Your task to perform on an android device: Go to calendar. Show me events next week Image 0: 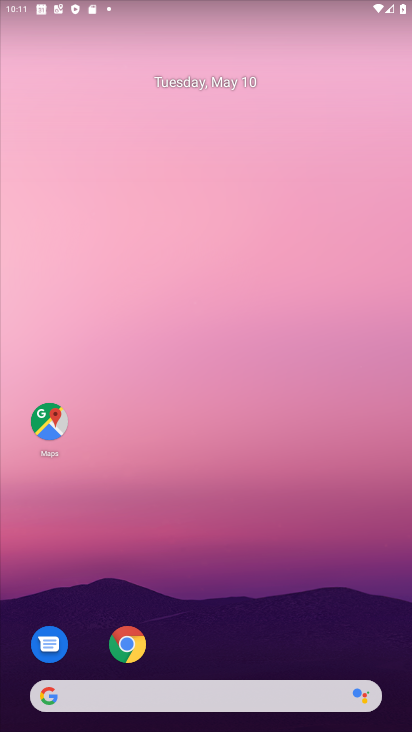
Step 0: drag from (264, 634) to (325, 49)
Your task to perform on an android device: Go to calendar. Show me events next week Image 1: 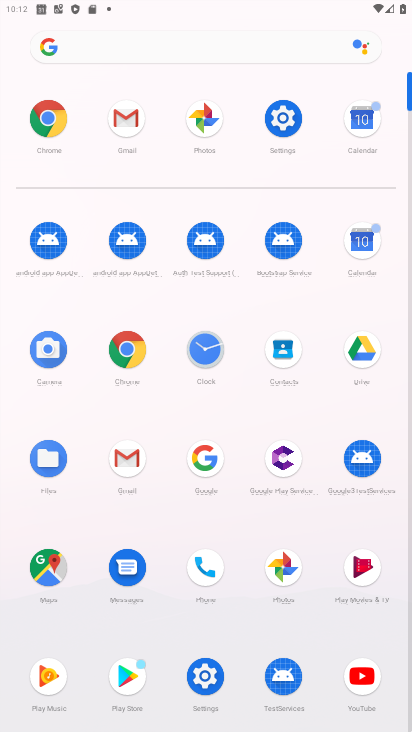
Step 1: click (364, 264)
Your task to perform on an android device: Go to calendar. Show me events next week Image 2: 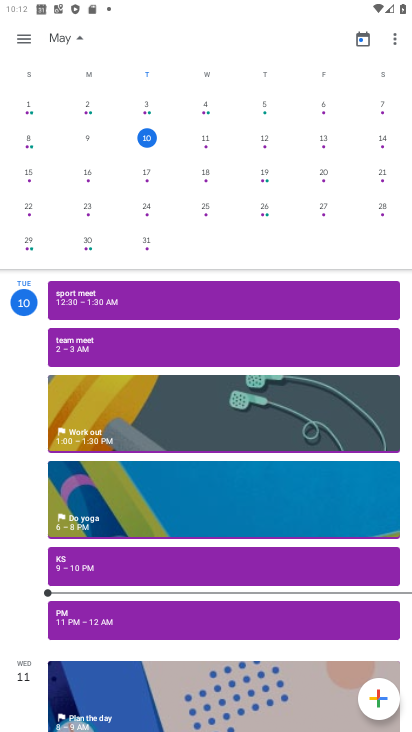
Step 2: click (34, 175)
Your task to perform on an android device: Go to calendar. Show me events next week Image 3: 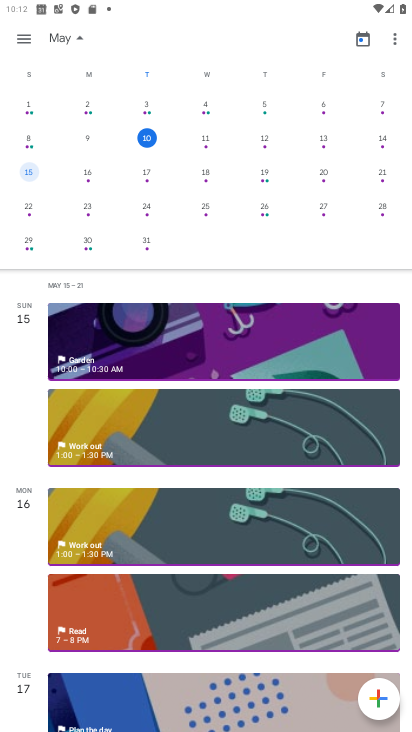
Step 3: task complete